Your task to perform on an android device: Open the stopwatch Image 0: 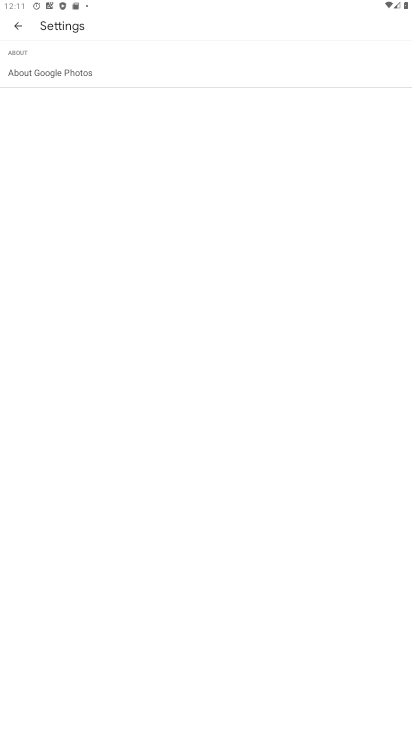
Step 0: press home button
Your task to perform on an android device: Open the stopwatch Image 1: 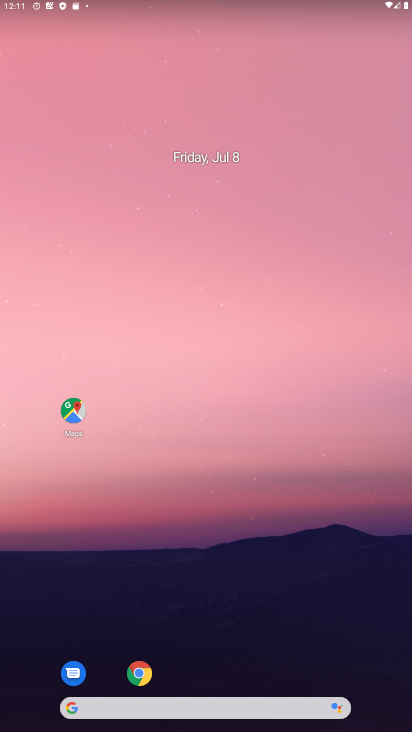
Step 1: drag from (209, 687) to (216, 25)
Your task to perform on an android device: Open the stopwatch Image 2: 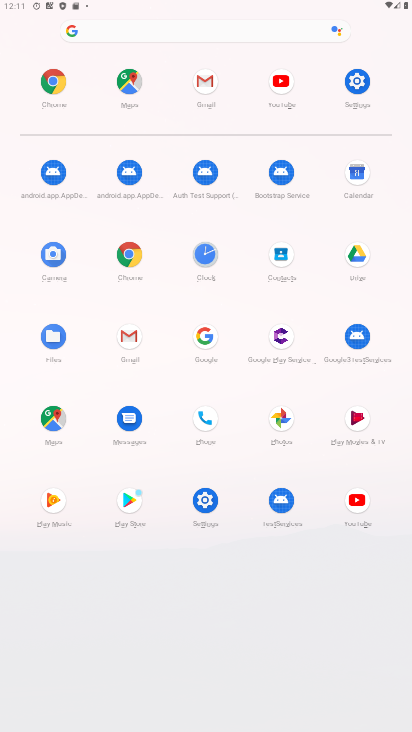
Step 2: click (207, 256)
Your task to perform on an android device: Open the stopwatch Image 3: 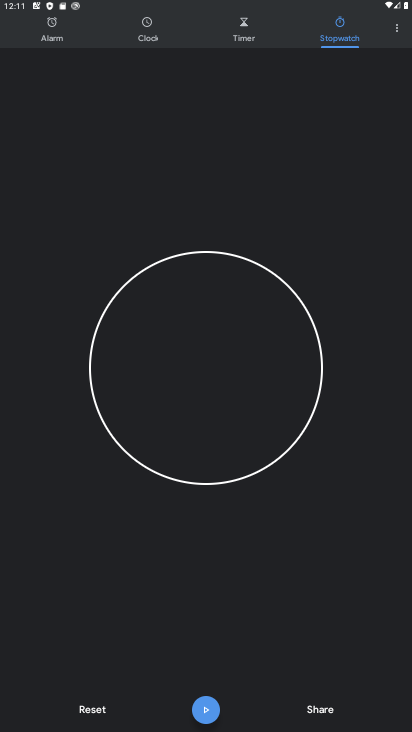
Step 3: click (99, 699)
Your task to perform on an android device: Open the stopwatch Image 4: 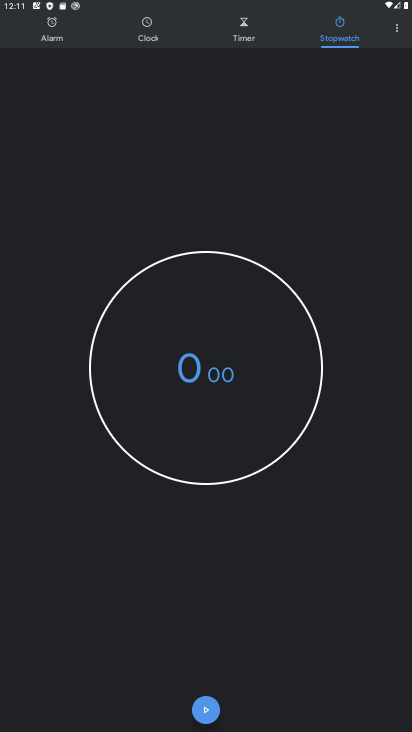
Step 4: task complete